Your task to perform on an android device: empty trash in google photos Image 0: 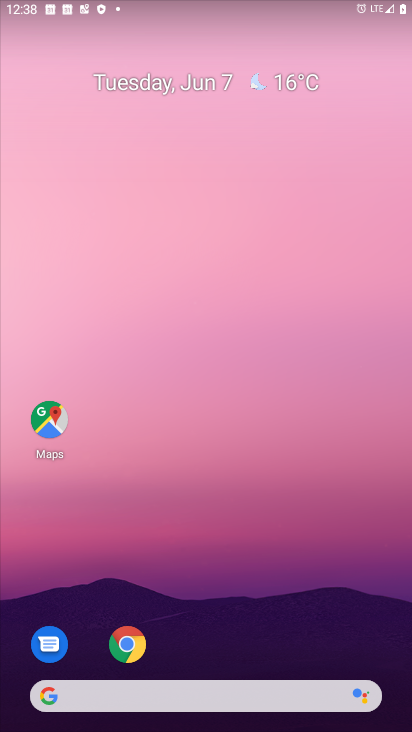
Step 0: drag from (86, 490) to (254, 164)
Your task to perform on an android device: empty trash in google photos Image 1: 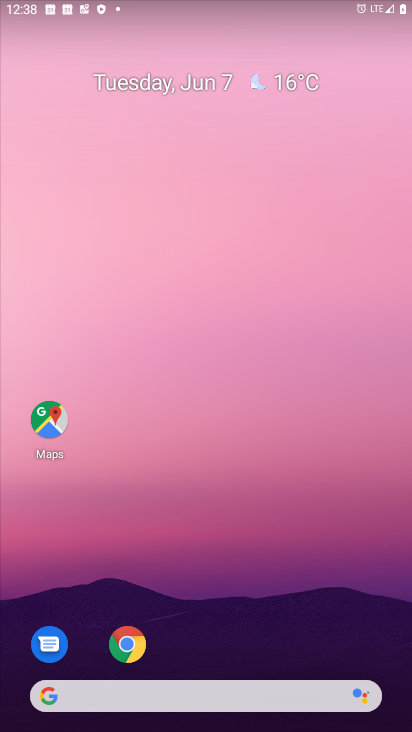
Step 1: drag from (58, 586) to (343, 103)
Your task to perform on an android device: empty trash in google photos Image 2: 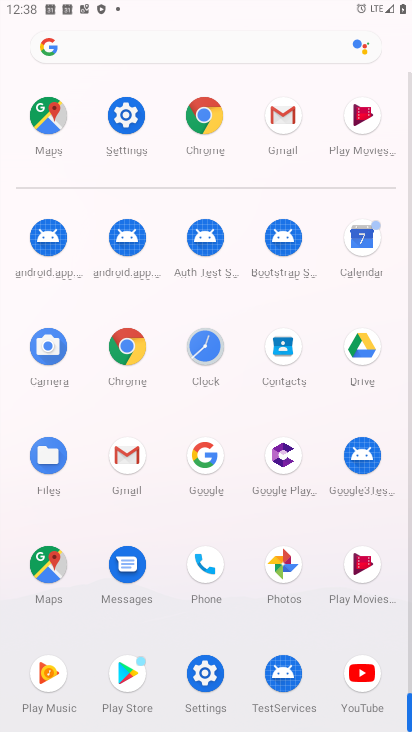
Step 2: click (286, 563)
Your task to perform on an android device: empty trash in google photos Image 3: 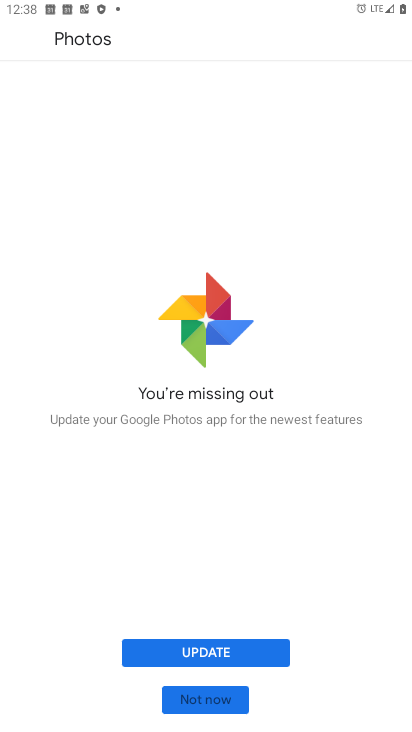
Step 3: click (218, 645)
Your task to perform on an android device: empty trash in google photos Image 4: 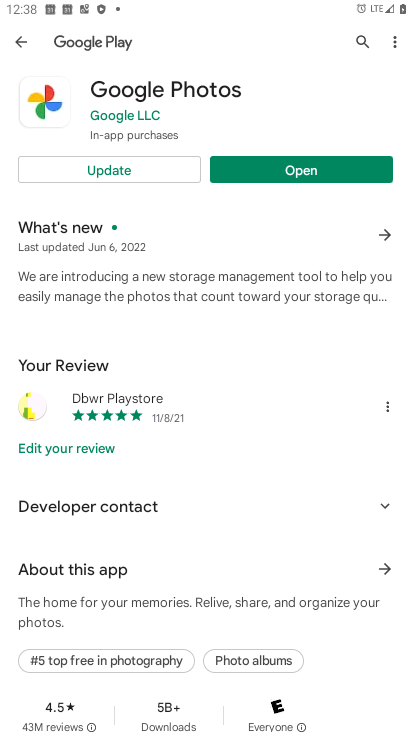
Step 4: click (298, 174)
Your task to perform on an android device: empty trash in google photos Image 5: 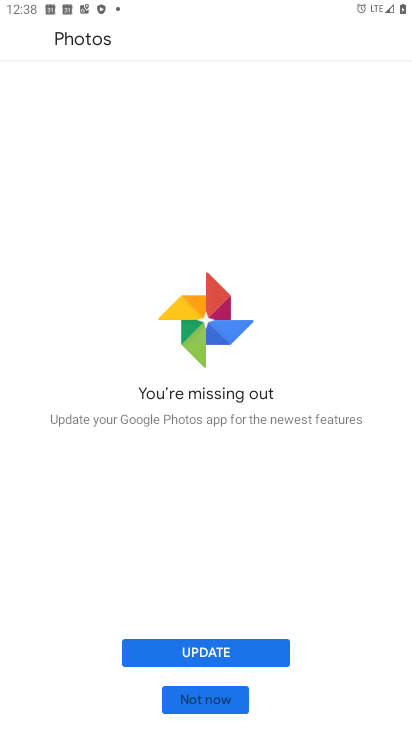
Step 5: click (185, 655)
Your task to perform on an android device: empty trash in google photos Image 6: 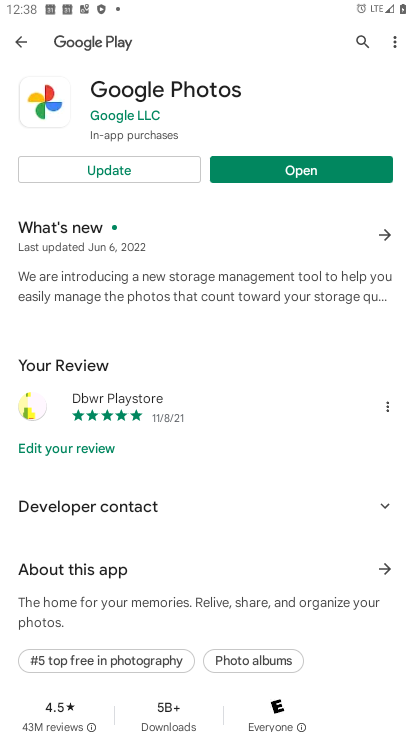
Step 6: click (337, 163)
Your task to perform on an android device: empty trash in google photos Image 7: 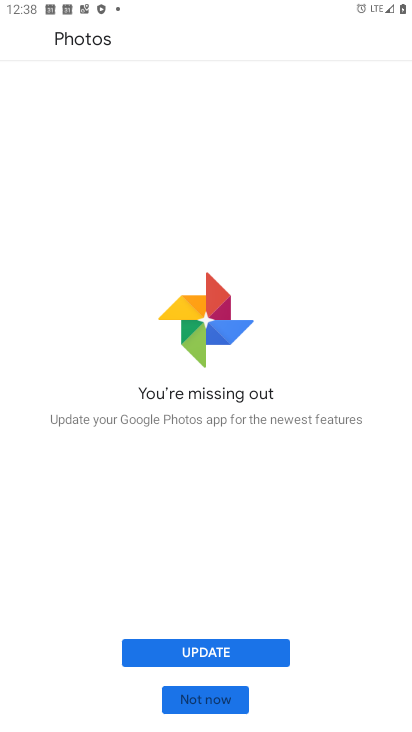
Step 7: click (188, 715)
Your task to perform on an android device: empty trash in google photos Image 8: 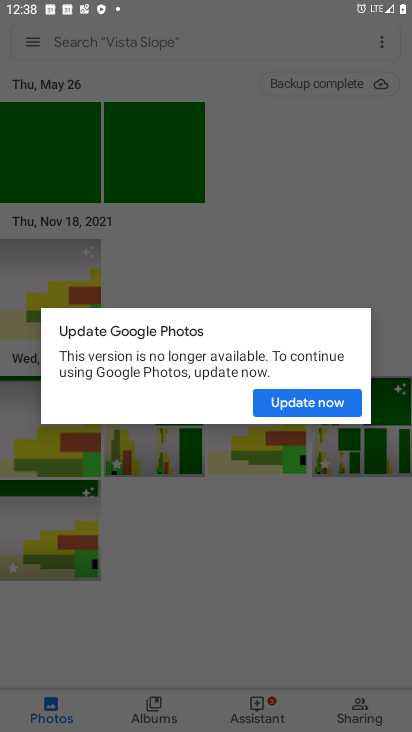
Step 8: click (312, 398)
Your task to perform on an android device: empty trash in google photos Image 9: 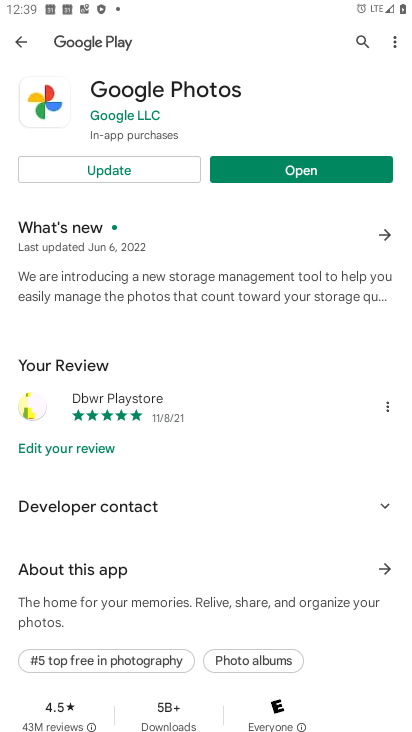
Step 9: click (237, 173)
Your task to perform on an android device: empty trash in google photos Image 10: 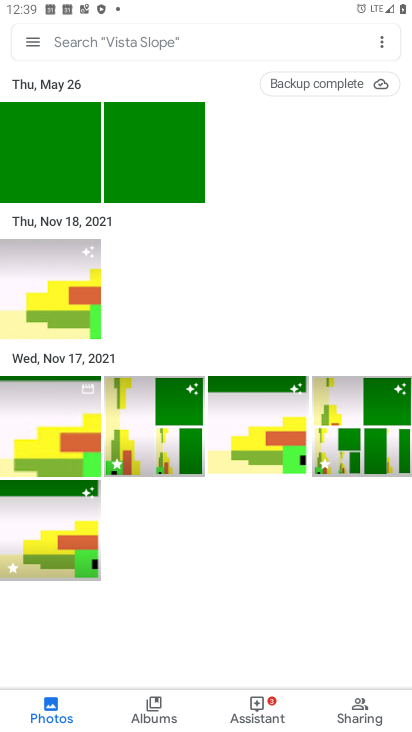
Step 10: click (28, 47)
Your task to perform on an android device: empty trash in google photos Image 11: 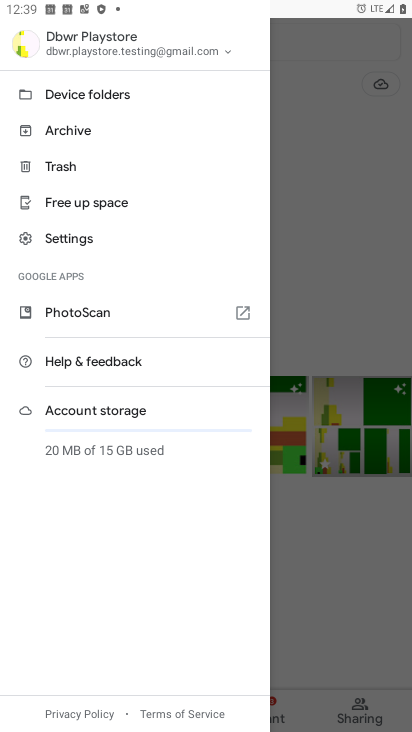
Step 11: click (62, 158)
Your task to perform on an android device: empty trash in google photos Image 12: 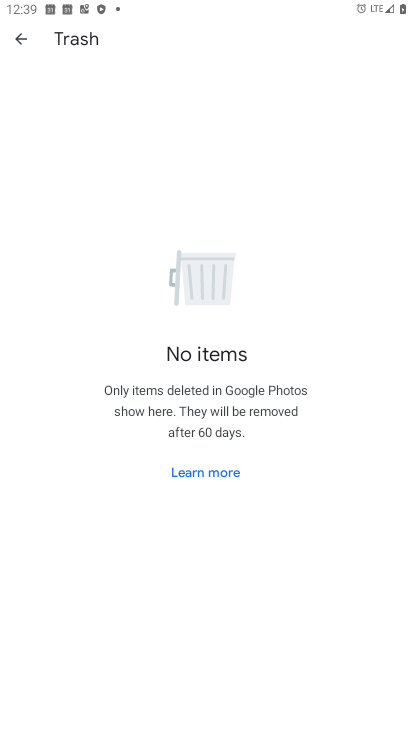
Step 12: task complete